Your task to perform on an android device: Open the web browser Image 0: 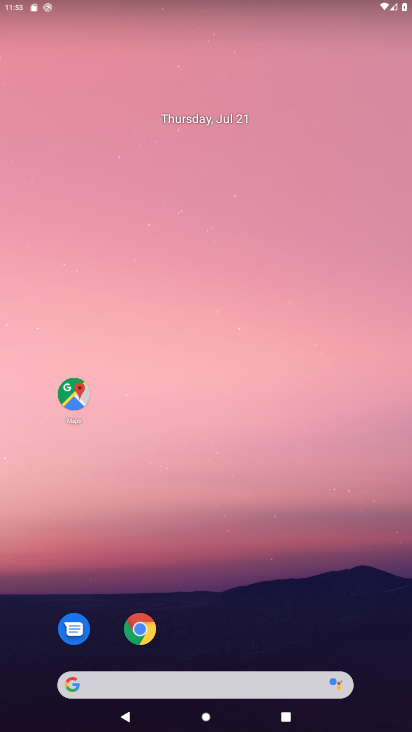
Step 0: drag from (237, 623) to (249, 34)
Your task to perform on an android device: Open the web browser Image 1: 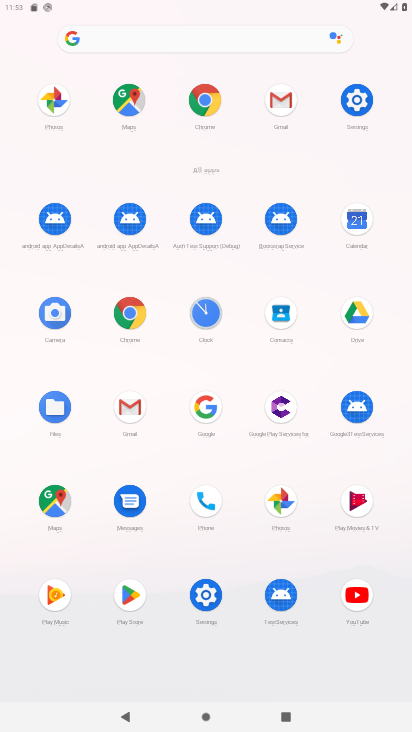
Step 1: click (124, 318)
Your task to perform on an android device: Open the web browser Image 2: 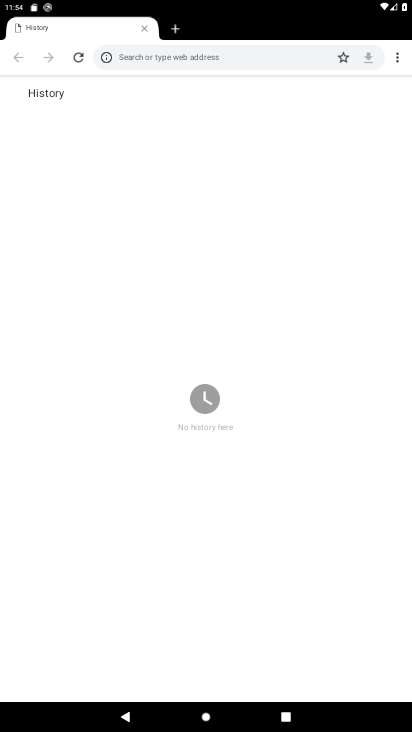
Step 2: task complete